Your task to perform on an android device: Open wifi settings Image 0: 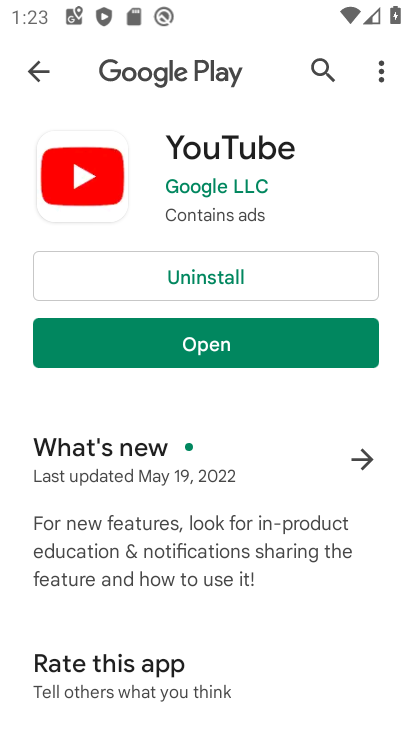
Step 0: press home button
Your task to perform on an android device: Open wifi settings Image 1: 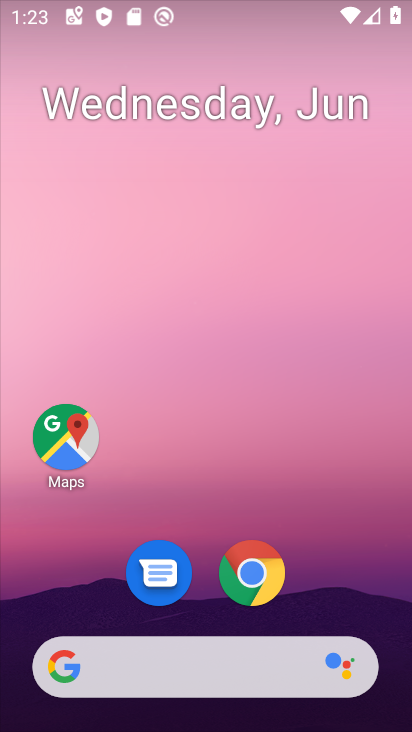
Step 1: drag from (384, 586) to (256, 202)
Your task to perform on an android device: Open wifi settings Image 2: 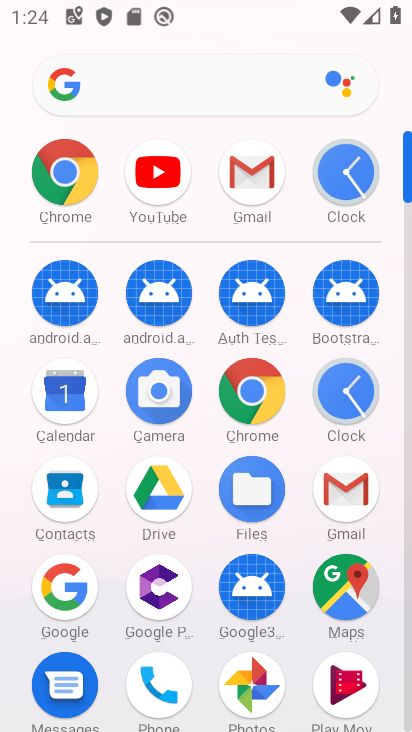
Step 2: drag from (275, 647) to (285, 327)
Your task to perform on an android device: Open wifi settings Image 3: 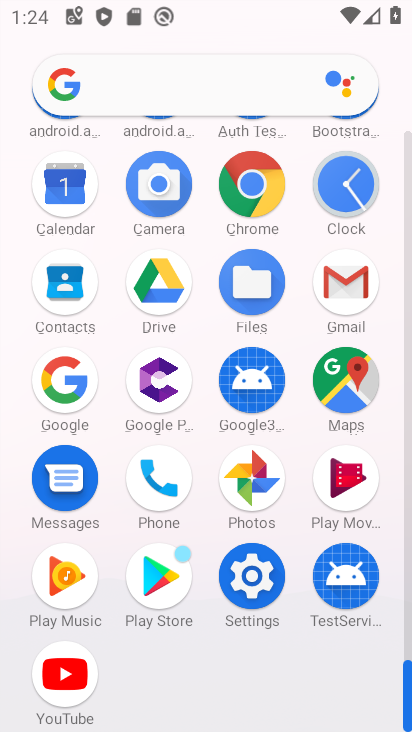
Step 3: click (249, 582)
Your task to perform on an android device: Open wifi settings Image 4: 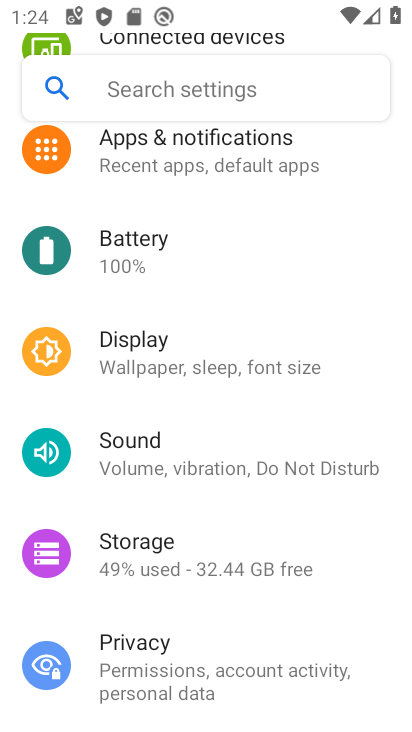
Step 4: drag from (198, 251) to (227, 563)
Your task to perform on an android device: Open wifi settings Image 5: 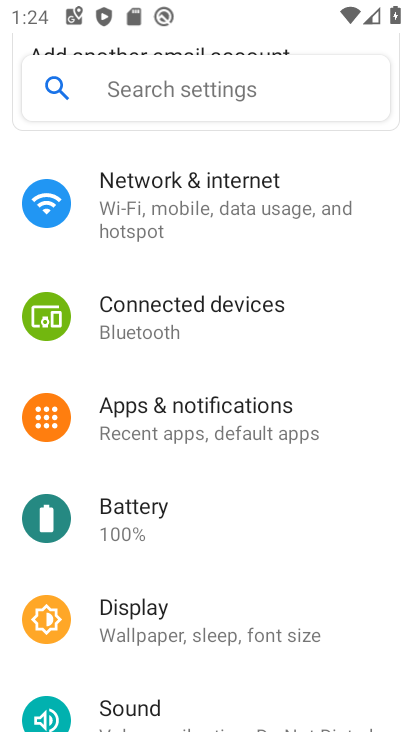
Step 5: click (195, 207)
Your task to perform on an android device: Open wifi settings Image 6: 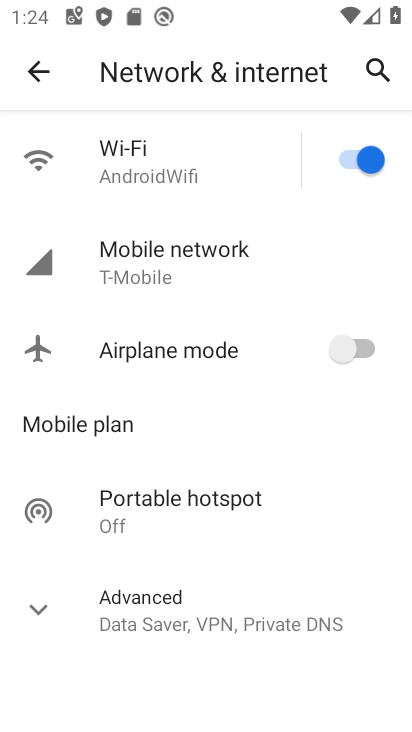
Step 6: click (193, 175)
Your task to perform on an android device: Open wifi settings Image 7: 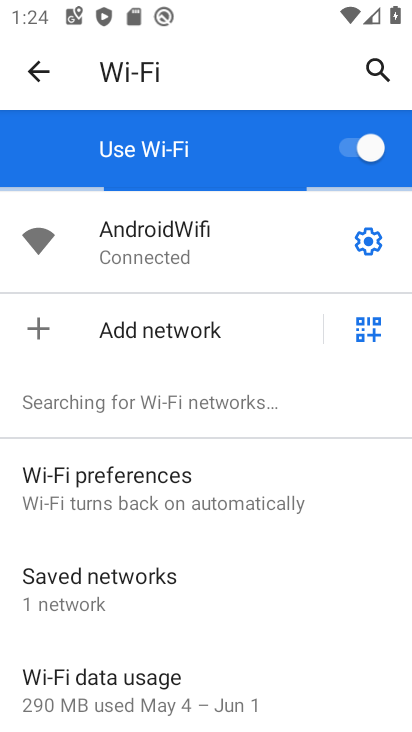
Step 7: click (362, 240)
Your task to perform on an android device: Open wifi settings Image 8: 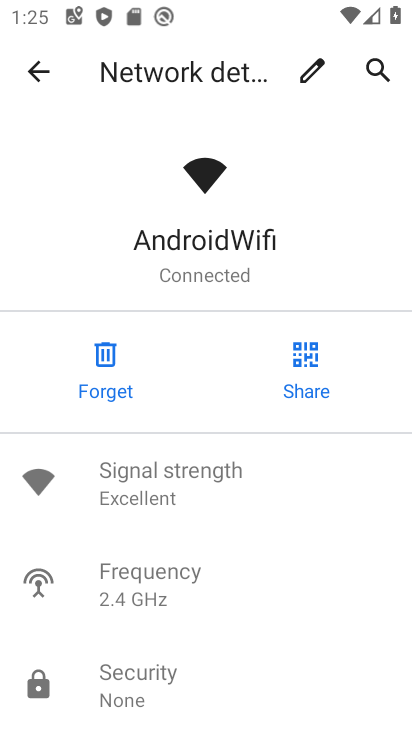
Step 8: task complete